Your task to perform on an android device: Open the calendar app, open the side menu, and click the "Day" option Image 0: 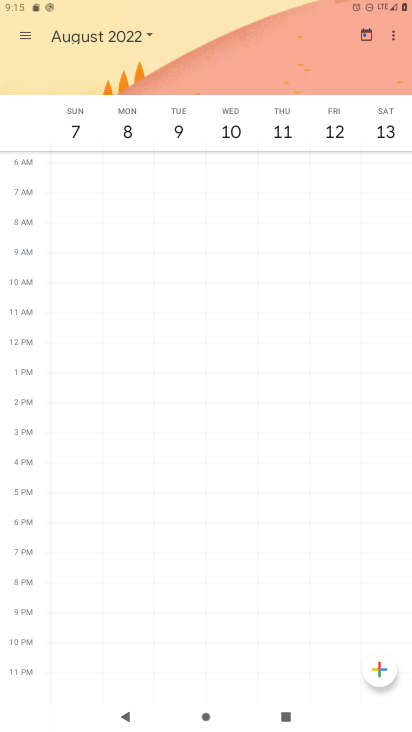
Step 0: press home button
Your task to perform on an android device: Open the calendar app, open the side menu, and click the "Day" option Image 1: 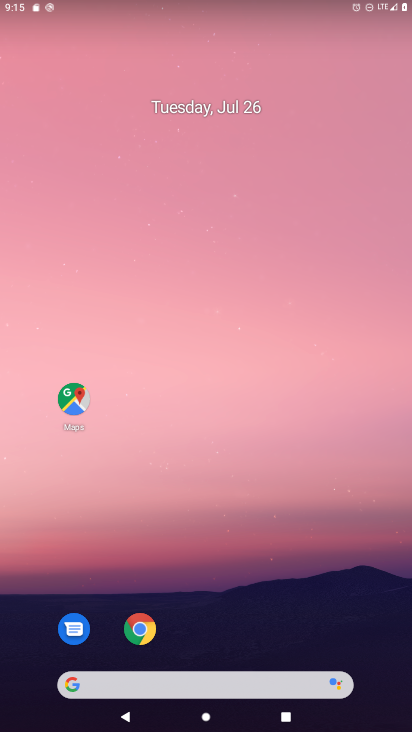
Step 1: drag from (192, 662) to (343, 31)
Your task to perform on an android device: Open the calendar app, open the side menu, and click the "Day" option Image 2: 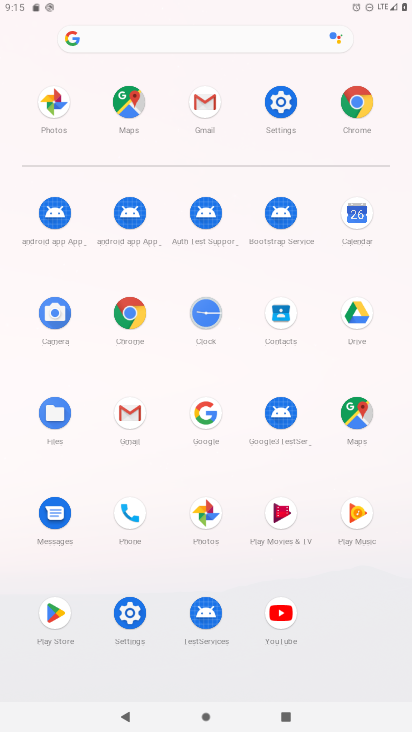
Step 2: click (359, 214)
Your task to perform on an android device: Open the calendar app, open the side menu, and click the "Day" option Image 3: 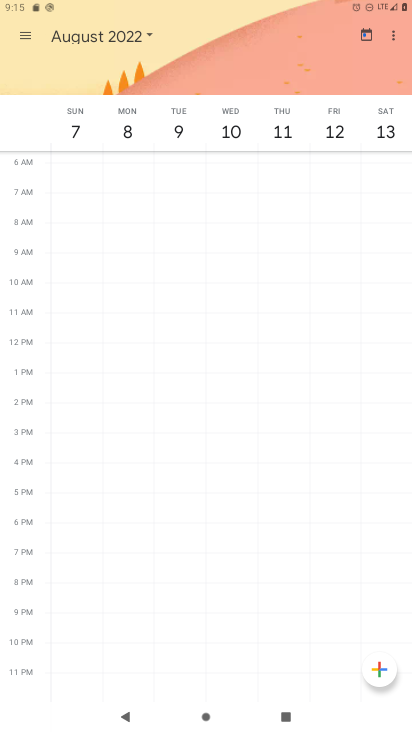
Step 3: click (30, 35)
Your task to perform on an android device: Open the calendar app, open the side menu, and click the "Day" option Image 4: 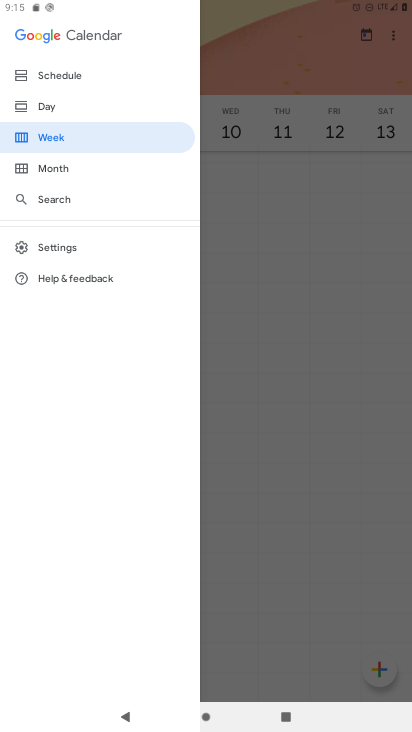
Step 4: click (60, 105)
Your task to perform on an android device: Open the calendar app, open the side menu, and click the "Day" option Image 5: 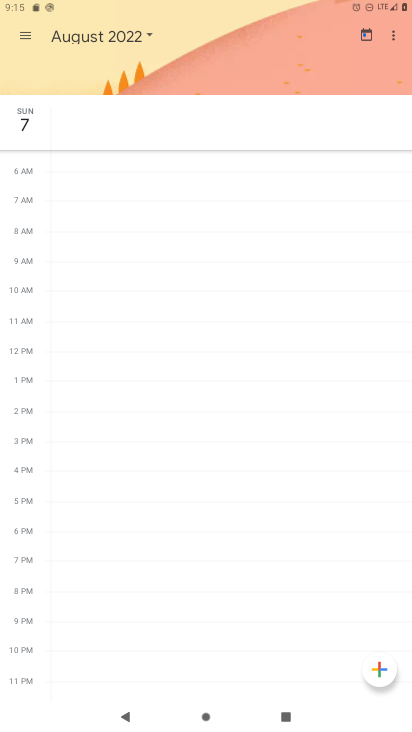
Step 5: task complete